Your task to perform on an android device: uninstall "Instagram" Image 0: 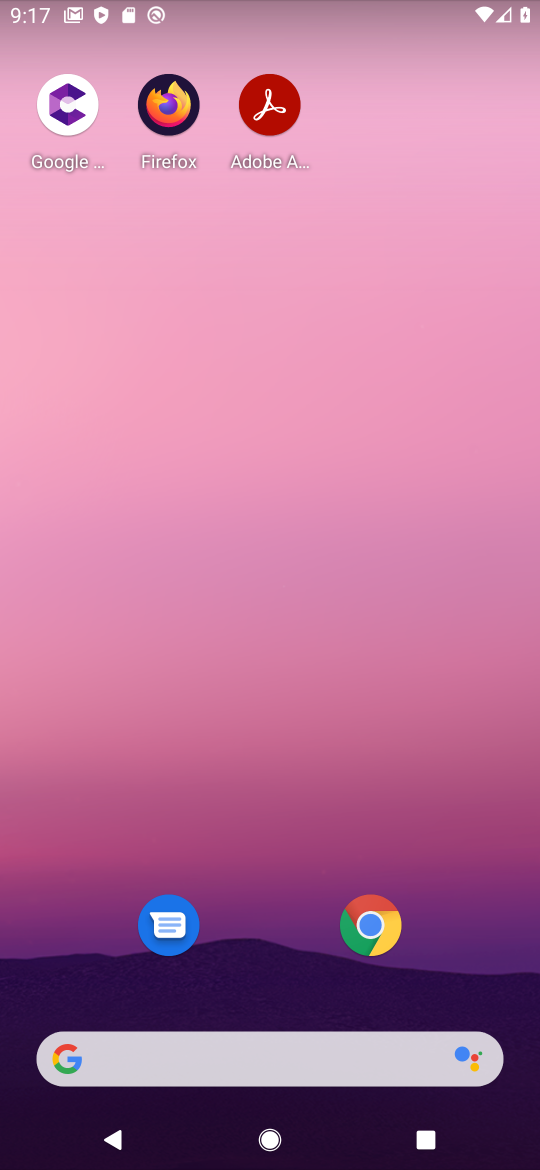
Step 0: drag from (267, 795) to (214, 3)
Your task to perform on an android device: uninstall "Instagram" Image 1: 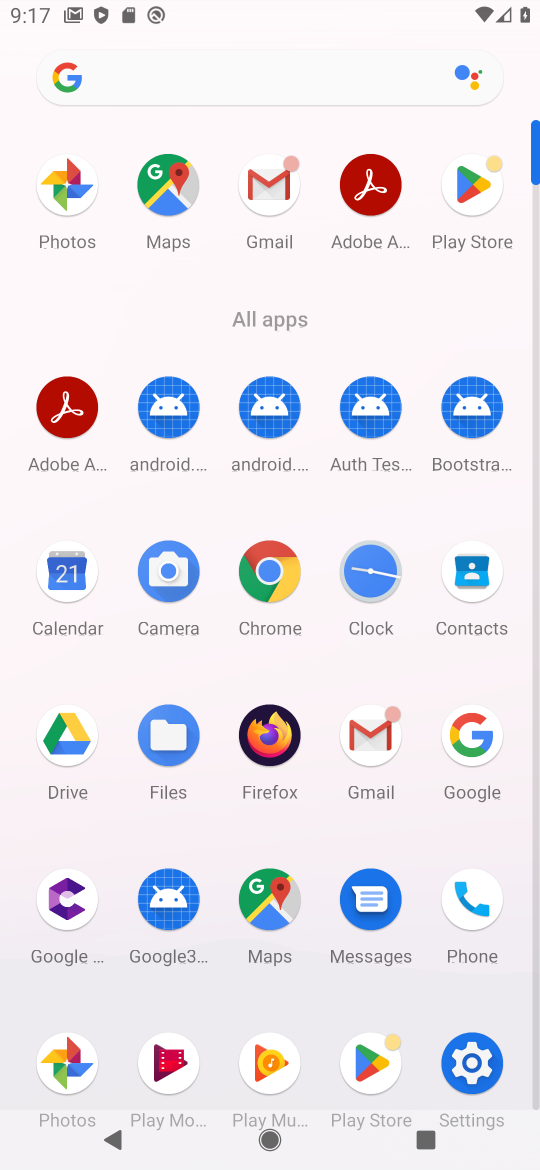
Step 1: click (450, 170)
Your task to perform on an android device: uninstall "Instagram" Image 2: 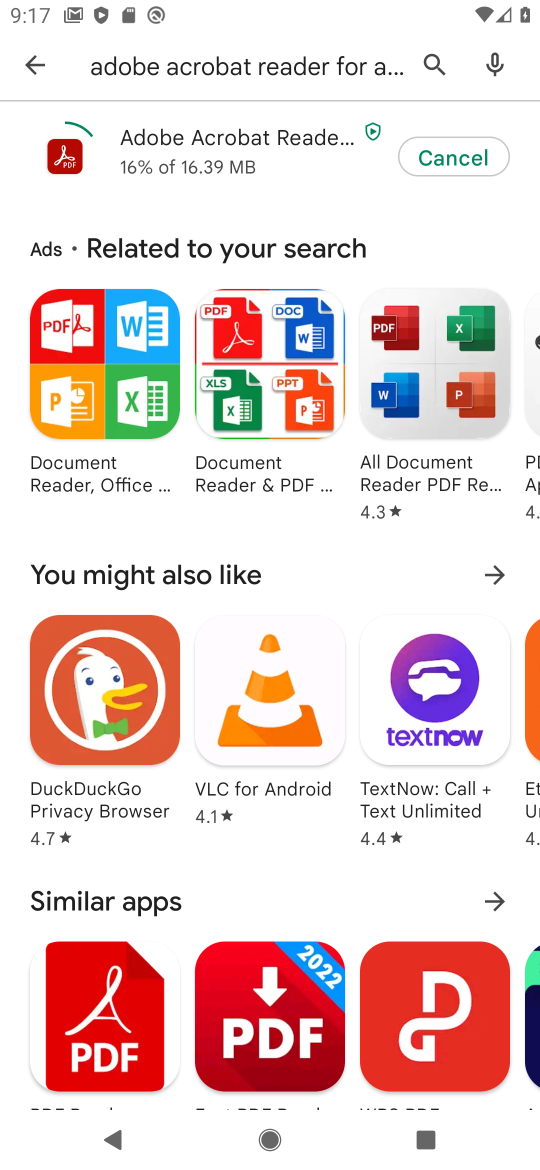
Step 2: click (431, 74)
Your task to perform on an android device: uninstall "Instagram" Image 3: 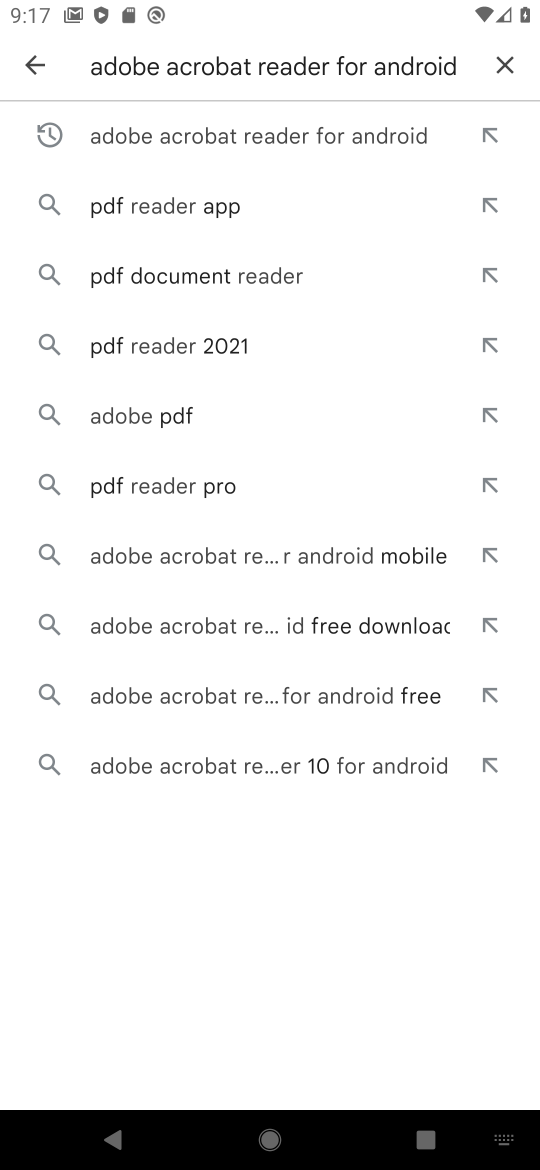
Step 3: click (503, 69)
Your task to perform on an android device: uninstall "Instagram" Image 4: 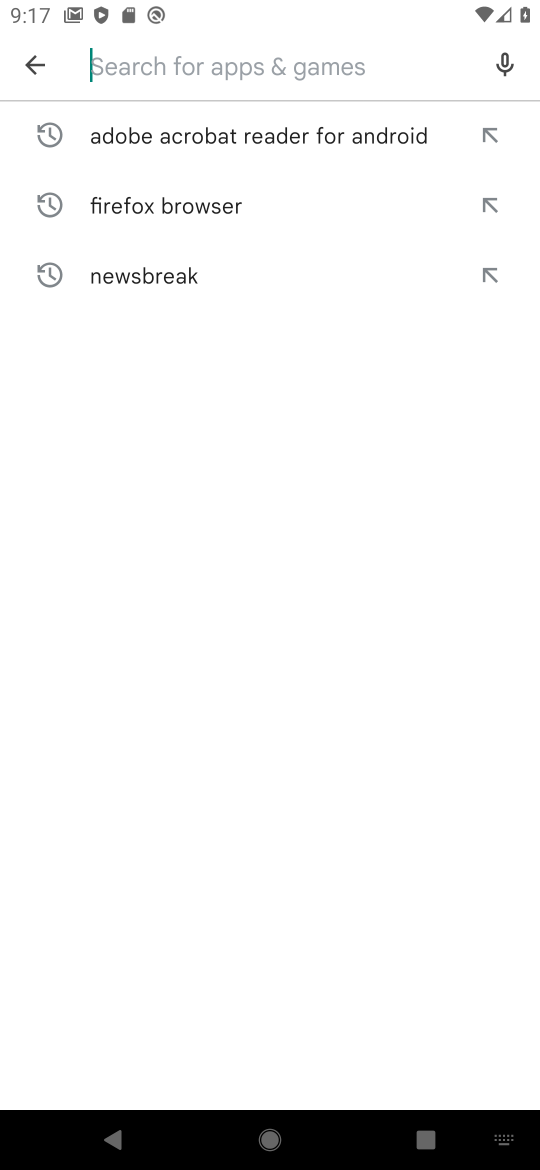
Step 4: click (220, 65)
Your task to perform on an android device: uninstall "Instagram" Image 5: 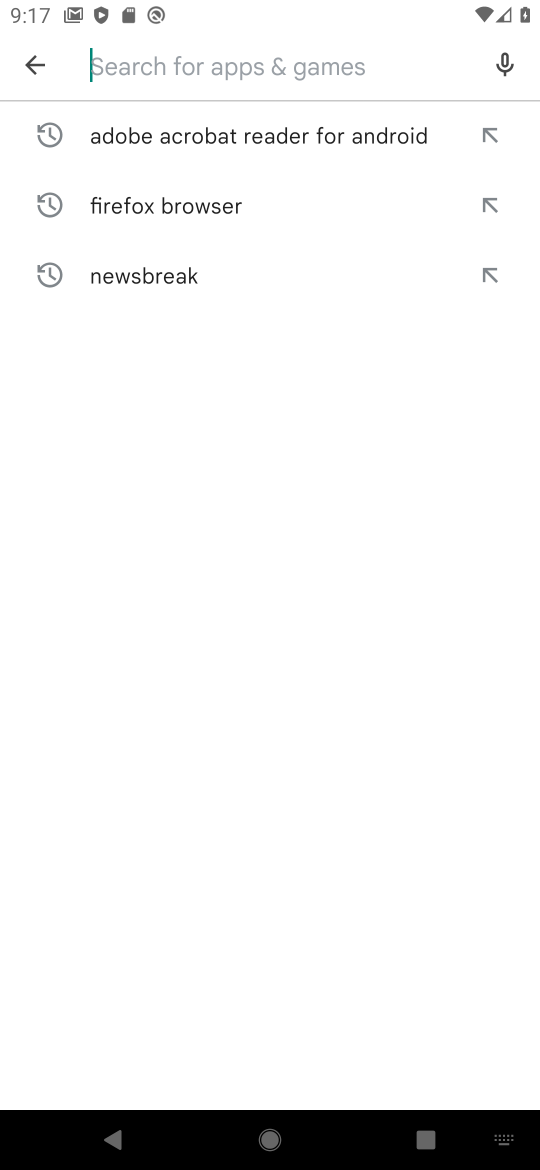
Step 5: type "instagram"
Your task to perform on an android device: uninstall "Instagram" Image 6: 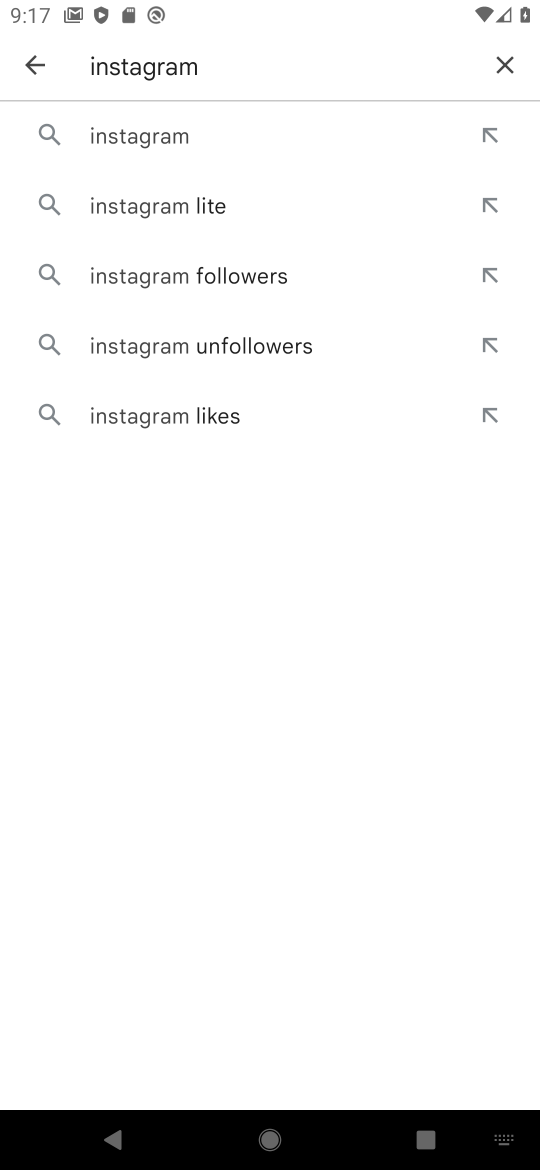
Step 6: click (196, 138)
Your task to perform on an android device: uninstall "Instagram" Image 7: 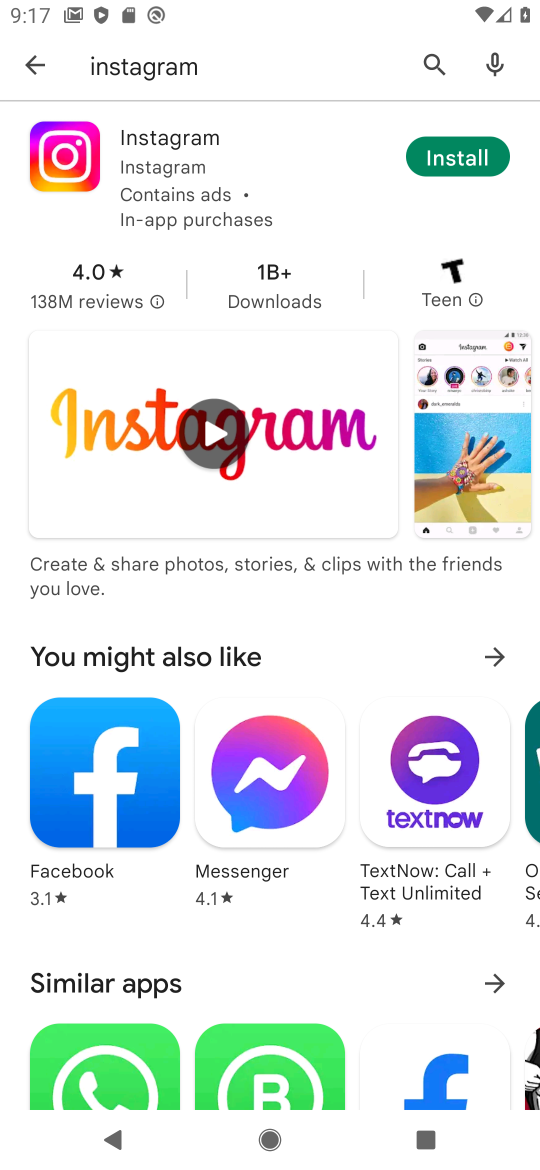
Step 7: click (233, 135)
Your task to perform on an android device: uninstall "Instagram" Image 8: 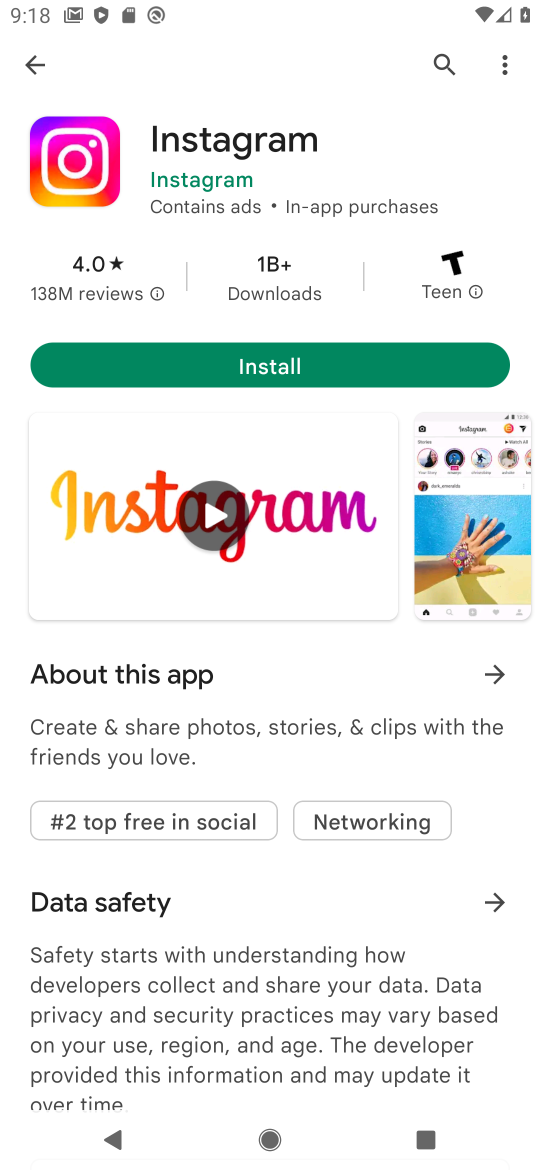
Step 8: task complete